Your task to perform on an android device: What's the weather going to be this weekend? Image 0: 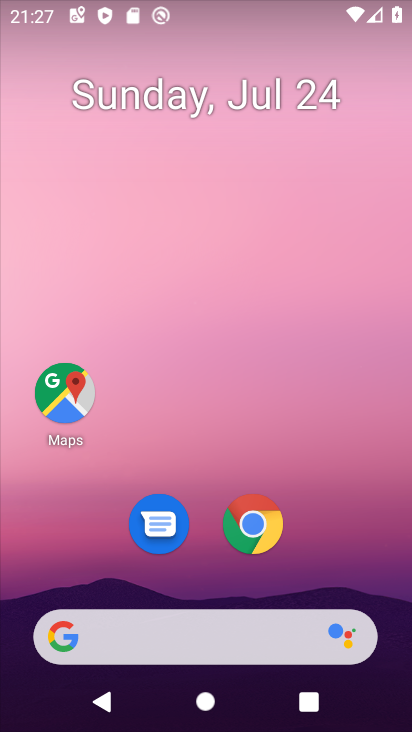
Step 0: press home button
Your task to perform on an android device: What's the weather going to be this weekend? Image 1: 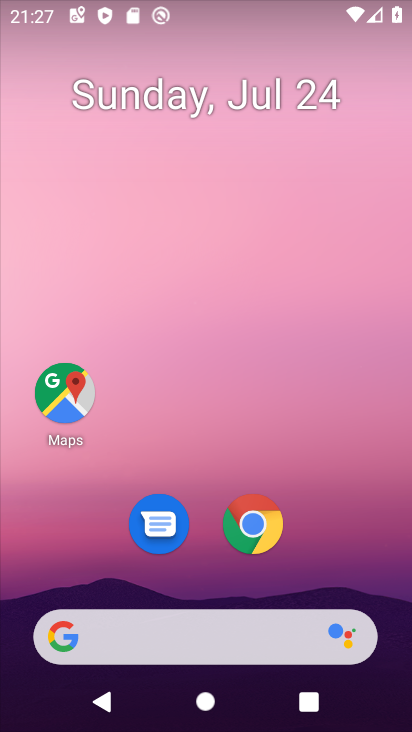
Step 1: click (159, 638)
Your task to perform on an android device: What's the weather going to be this weekend? Image 2: 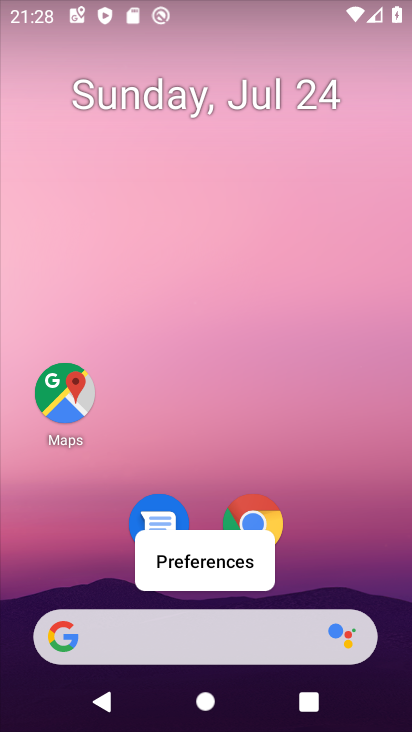
Step 2: click (143, 639)
Your task to perform on an android device: What's the weather going to be this weekend? Image 3: 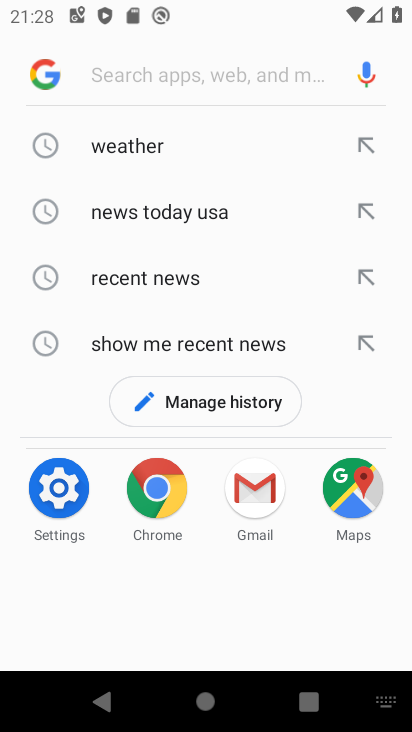
Step 3: click (152, 148)
Your task to perform on an android device: What's the weather going to be this weekend? Image 4: 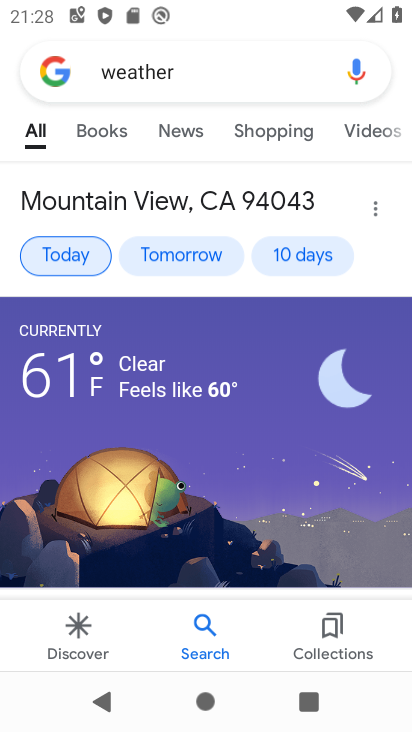
Step 4: click (296, 264)
Your task to perform on an android device: What's the weather going to be this weekend? Image 5: 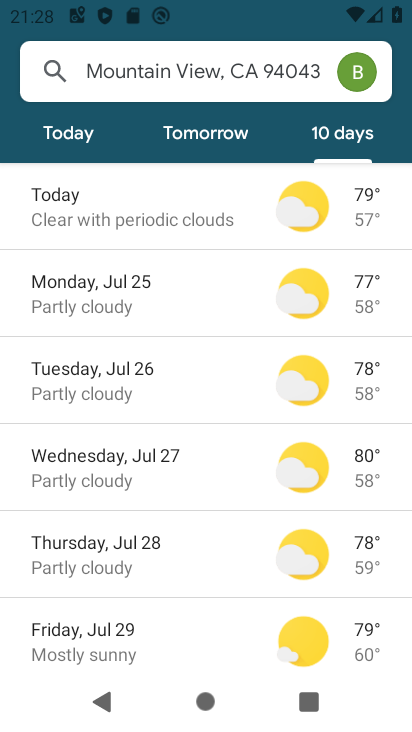
Step 5: task complete